Your task to perform on an android device: turn on sleep mode Image 0: 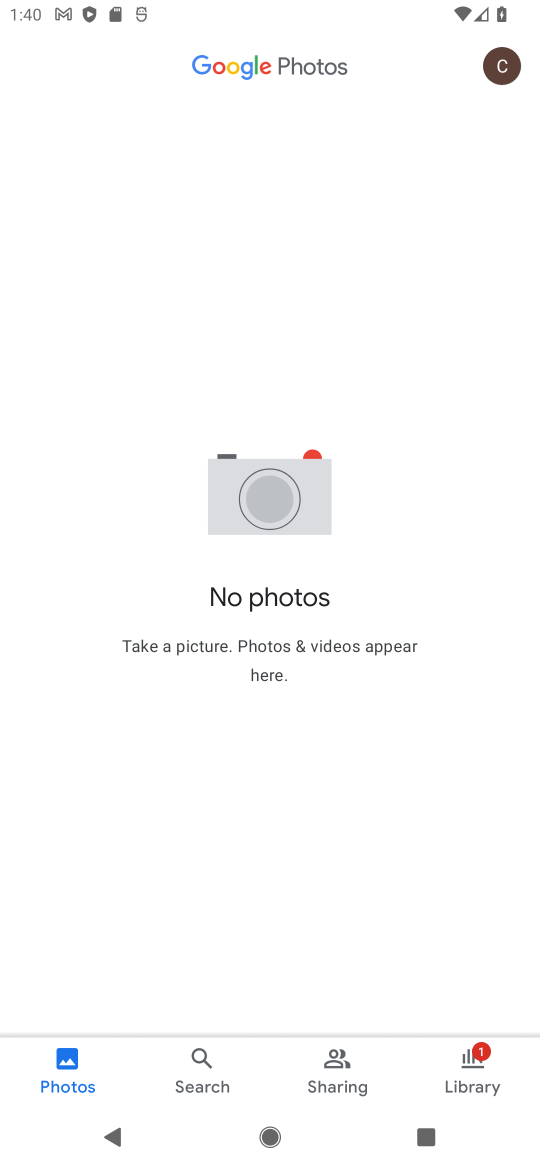
Step 0: press home button
Your task to perform on an android device: turn on sleep mode Image 1: 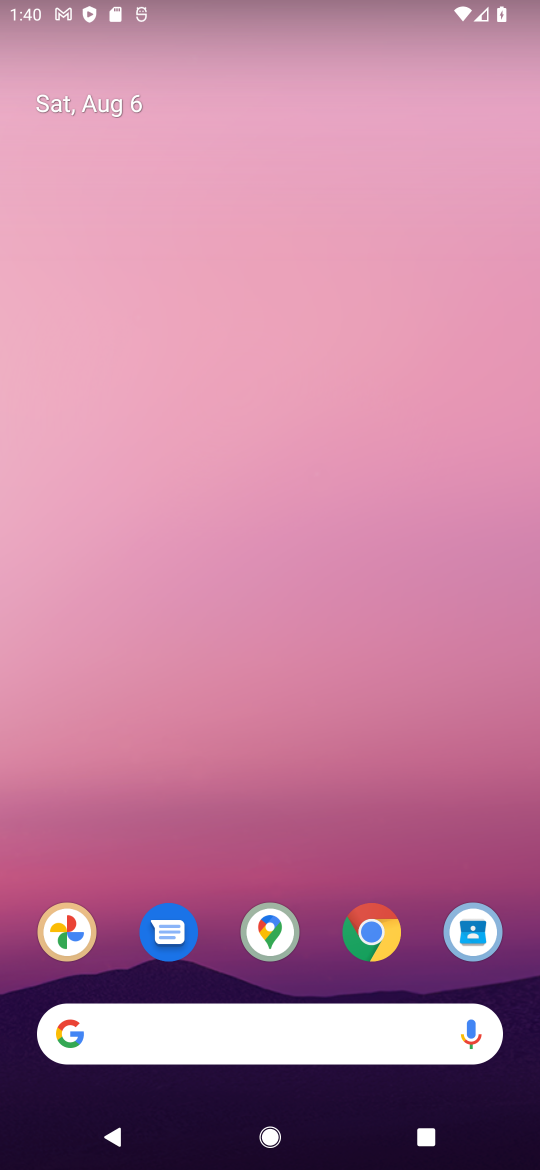
Step 1: drag from (279, 875) to (273, 49)
Your task to perform on an android device: turn on sleep mode Image 2: 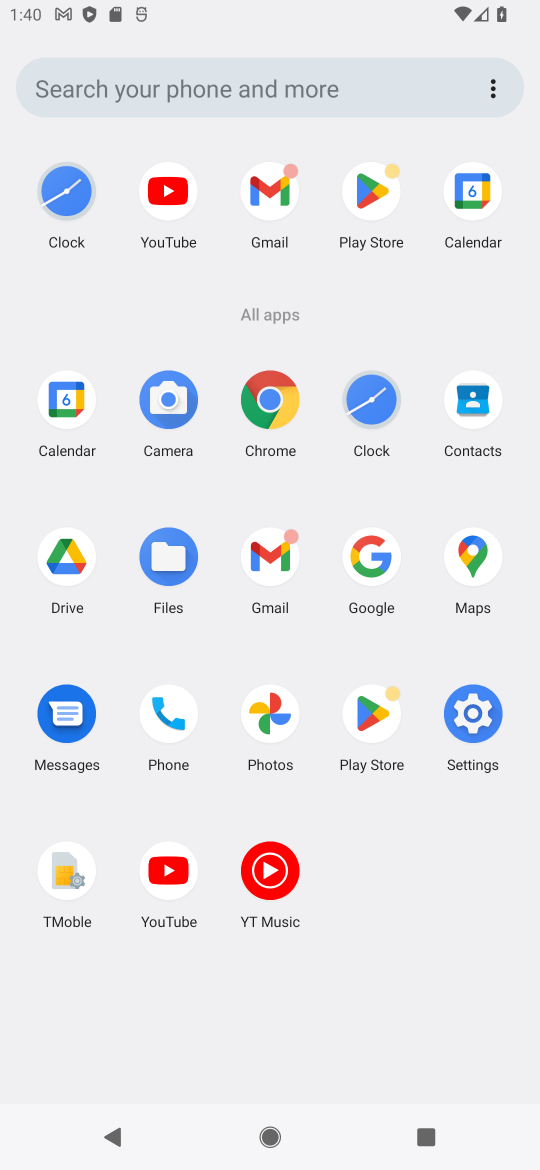
Step 2: click (475, 719)
Your task to perform on an android device: turn on sleep mode Image 3: 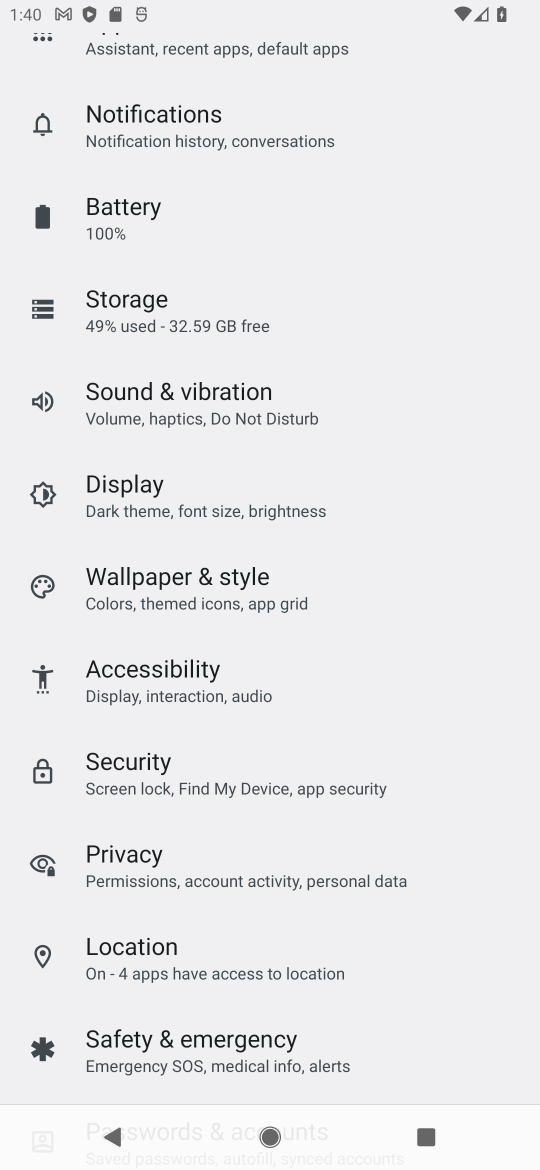
Step 3: click (90, 481)
Your task to perform on an android device: turn on sleep mode Image 4: 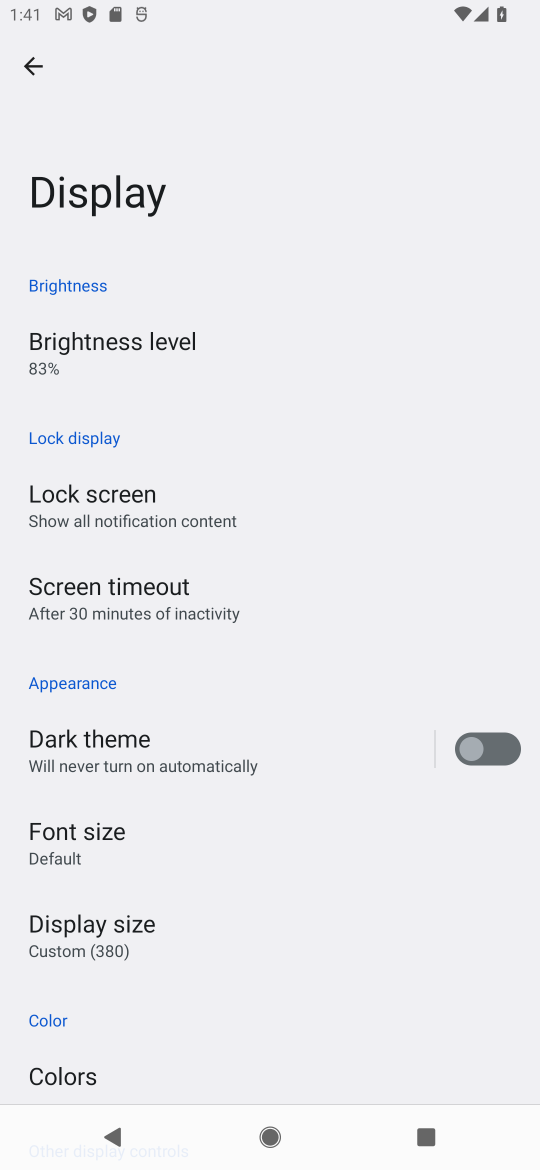
Step 4: task complete